Your task to perform on an android device: choose inbox layout in the gmail app Image 0: 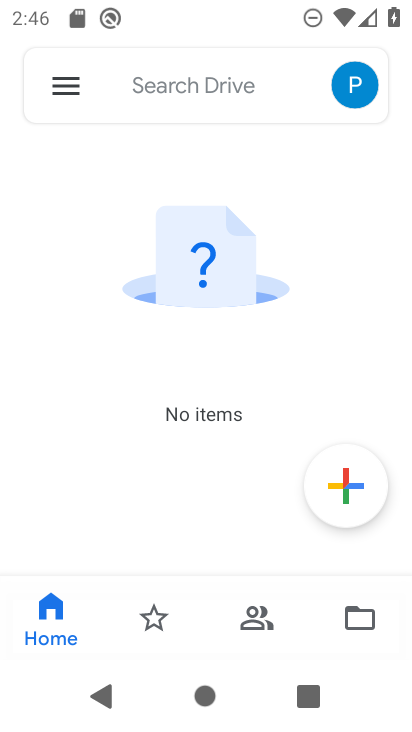
Step 0: press back button
Your task to perform on an android device: choose inbox layout in the gmail app Image 1: 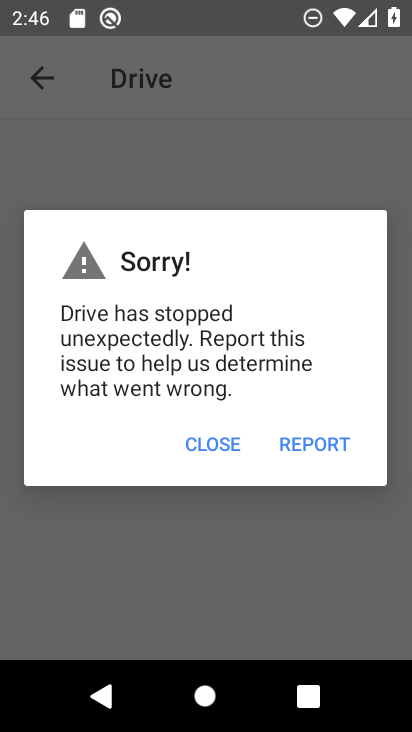
Step 1: click (215, 448)
Your task to perform on an android device: choose inbox layout in the gmail app Image 2: 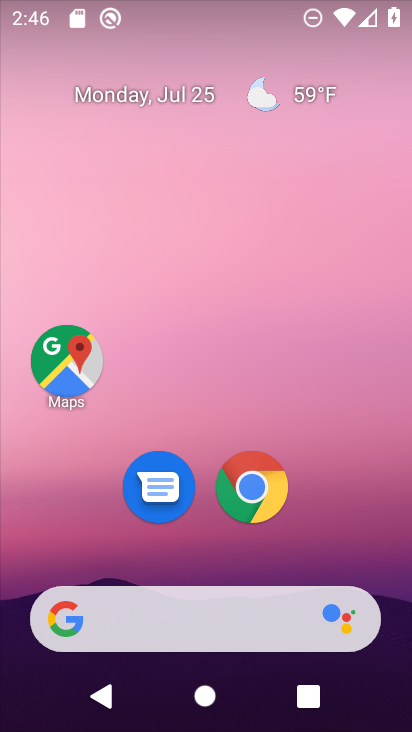
Step 2: drag from (161, 566) to (361, 1)
Your task to perform on an android device: choose inbox layout in the gmail app Image 3: 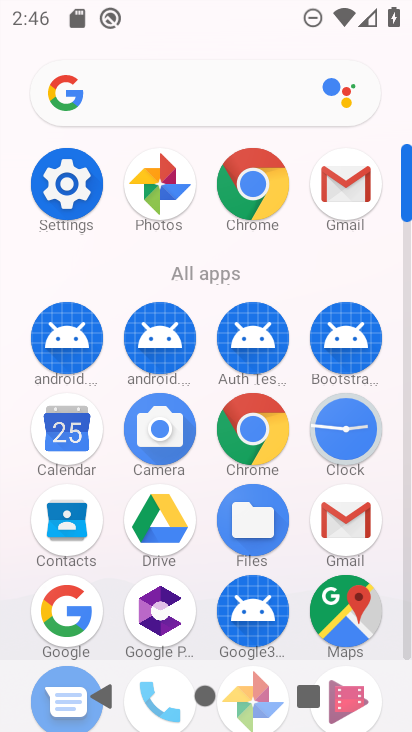
Step 3: click (363, 185)
Your task to perform on an android device: choose inbox layout in the gmail app Image 4: 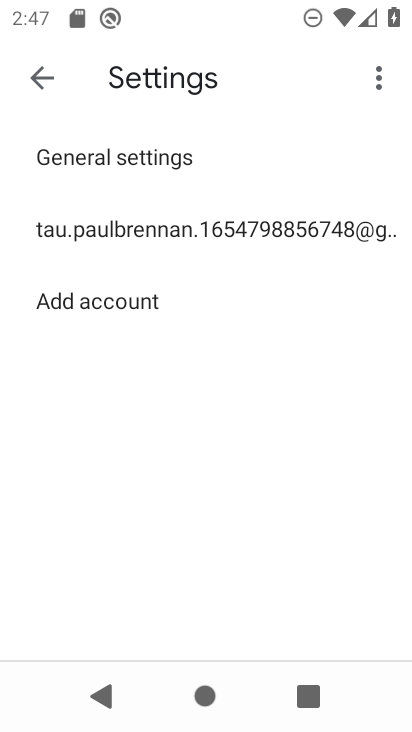
Step 4: click (187, 229)
Your task to perform on an android device: choose inbox layout in the gmail app Image 5: 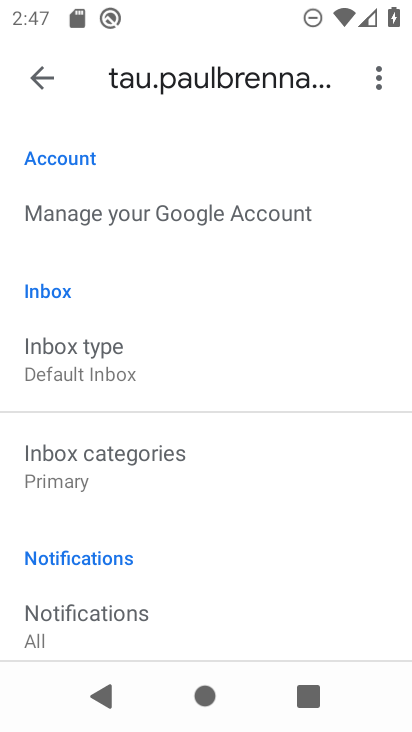
Step 5: click (76, 363)
Your task to perform on an android device: choose inbox layout in the gmail app Image 6: 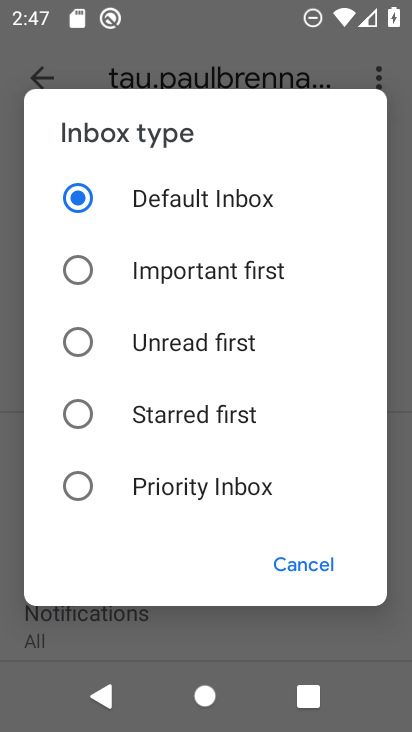
Step 6: click (75, 474)
Your task to perform on an android device: choose inbox layout in the gmail app Image 7: 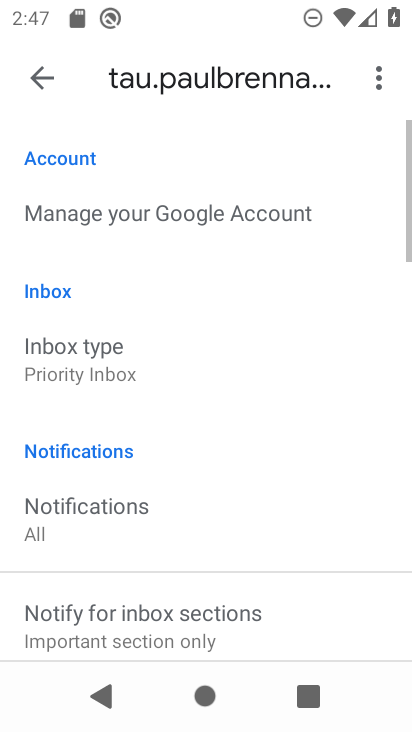
Step 7: task complete